Your task to perform on an android device: Show me the alarms in the clock app Image 0: 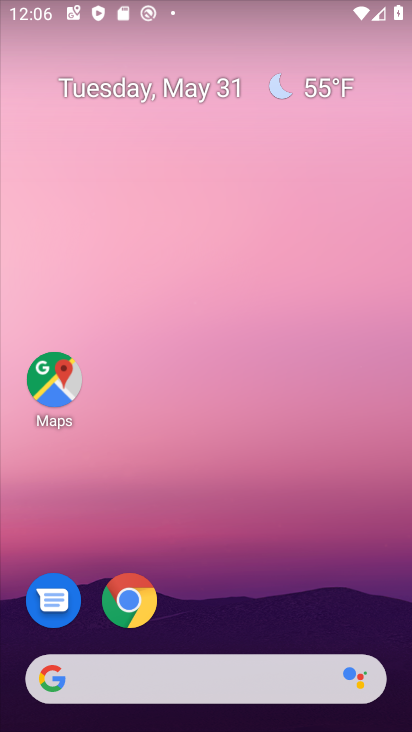
Step 0: drag from (330, 621) to (219, 193)
Your task to perform on an android device: Show me the alarms in the clock app Image 1: 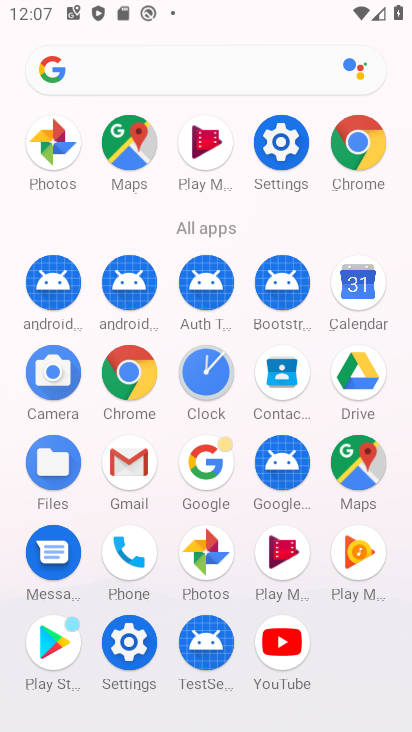
Step 1: click (210, 365)
Your task to perform on an android device: Show me the alarms in the clock app Image 2: 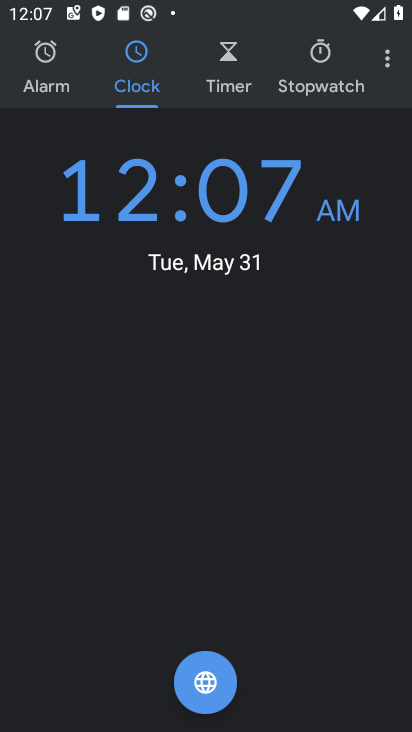
Step 2: click (49, 66)
Your task to perform on an android device: Show me the alarms in the clock app Image 3: 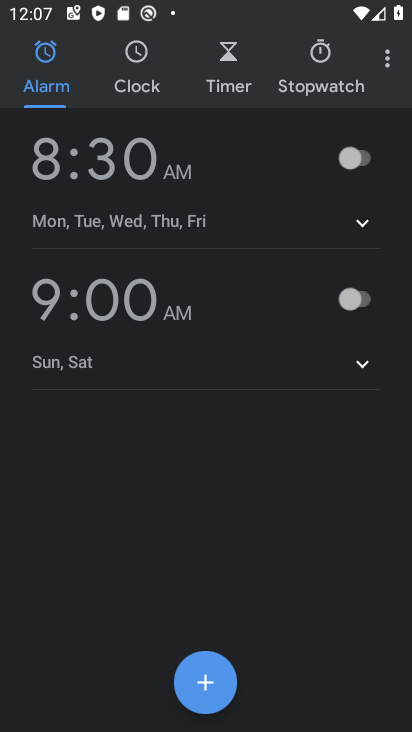
Step 3: task complete